Your task to perform on an android device: toggle airplane mode Image 0: 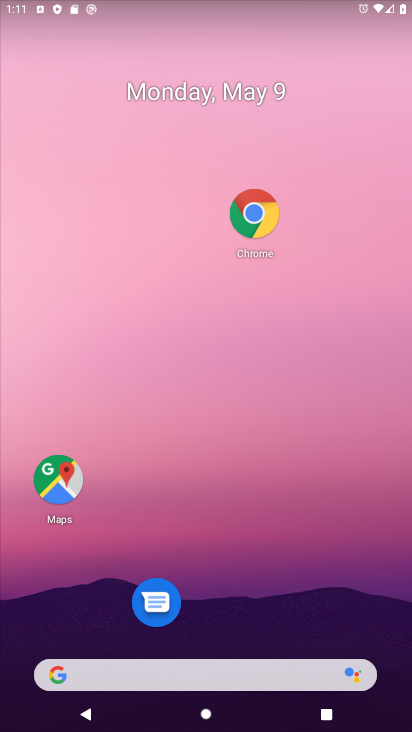
Step 0: drag from (275, 585) to (265, 80)
Your task to perform on an android device: toggle airplane mode Image 1: 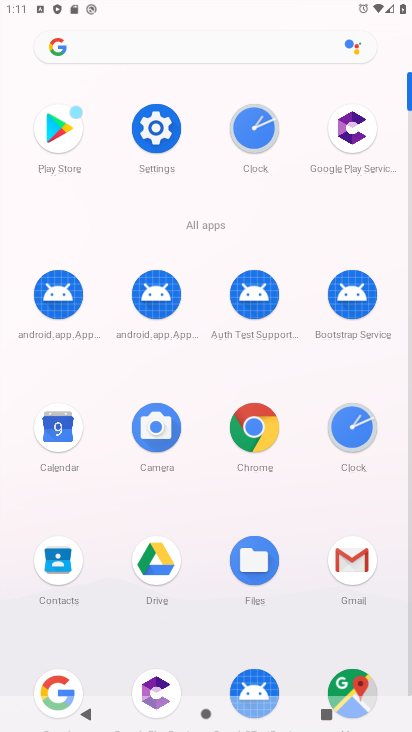
Step 1: click (143, 137)
Your task to perform on an android device: toggle airplane mode Image 2: 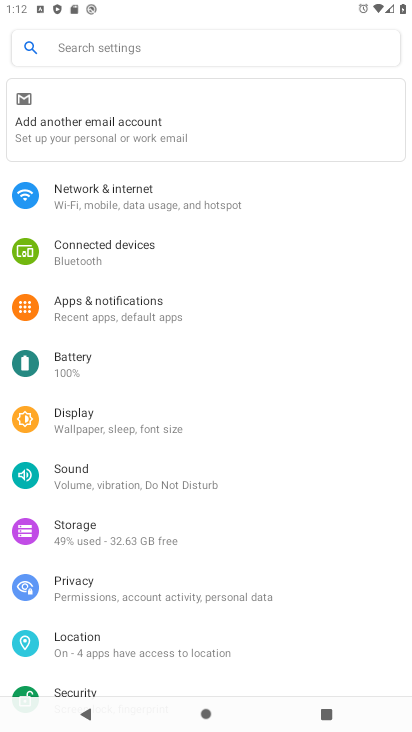
Step 2: click (299, 121)
Your task to perform on an android device: toggle airplane mode Image 3: 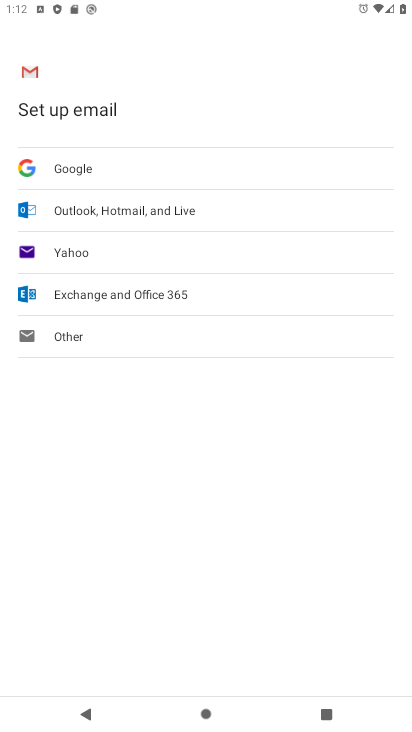
Step 3: click (90, 702)
Your task to perform on an android device: toggle airplane mode Image 4: 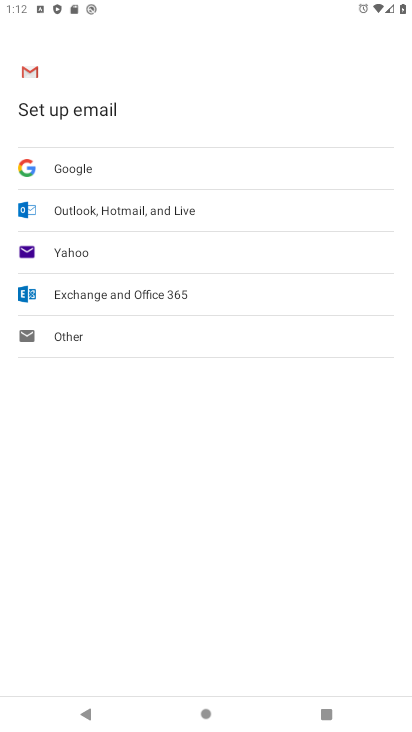
Step 4: click (85, 712)
Your task to perform on an android device: toggle airplane mode Image 5: 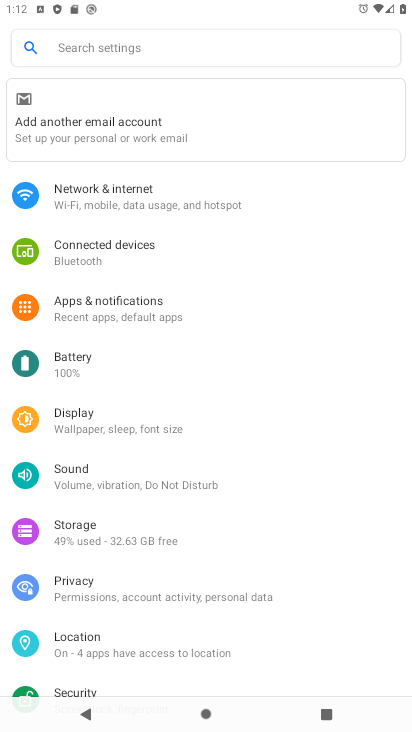
Step 5: click (154, 212)
Your task to perform on an android device: toggle airplane mode Image 6: 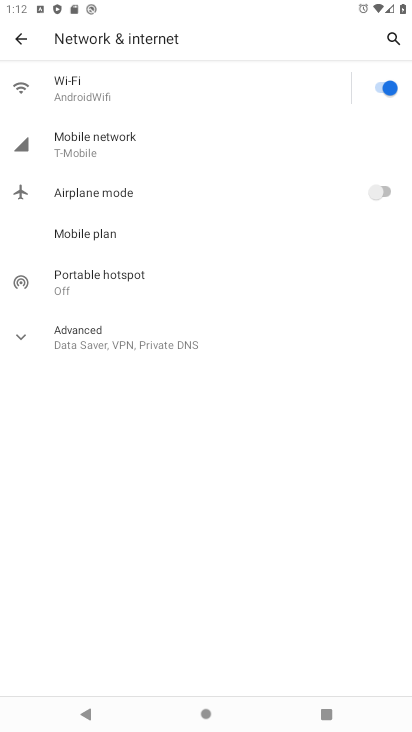
Step 6: click (383, 204)
Your task to perform on an android device: toggle airplane mode Image 7: 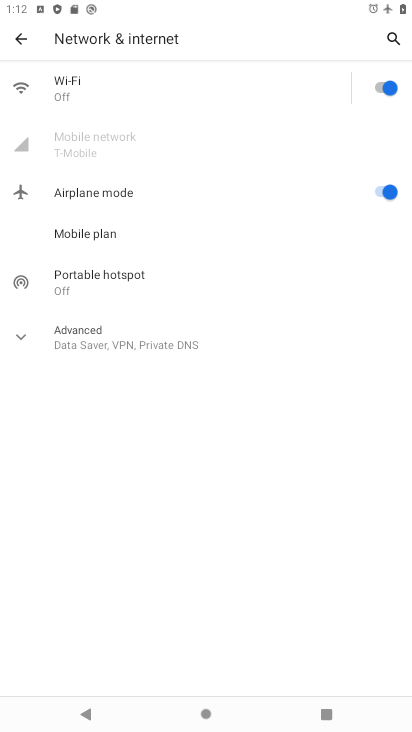
Step 7: task complete